Your task to perform on an android device: check google app version Image 0: 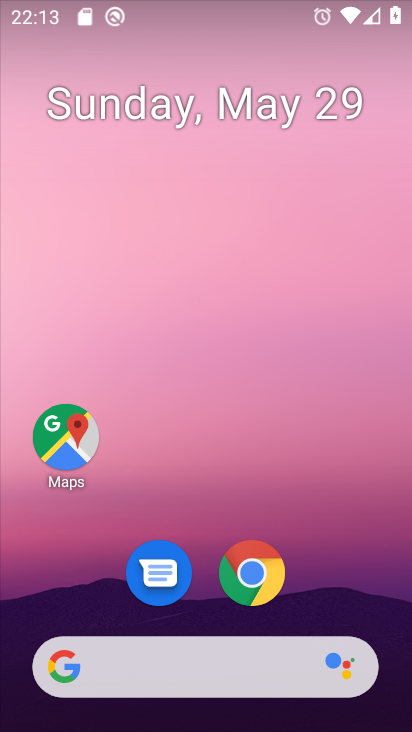
Step 0: click (156, 674)
Your task to perform on an android device: check google app version Image 1: 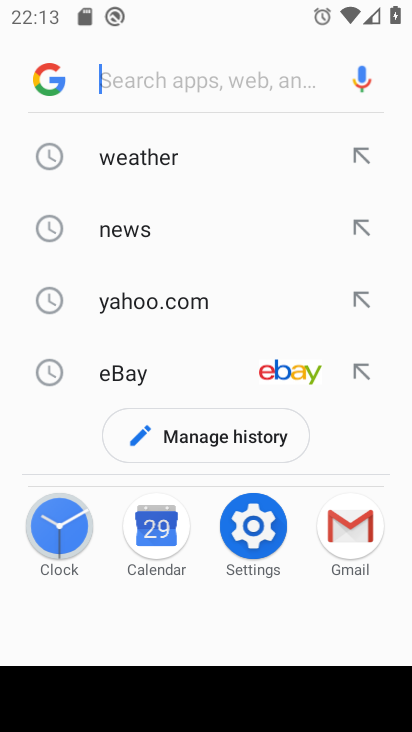
Step 1: click (57, 85)
Your task to perform on an android device: check google app version Image 2: 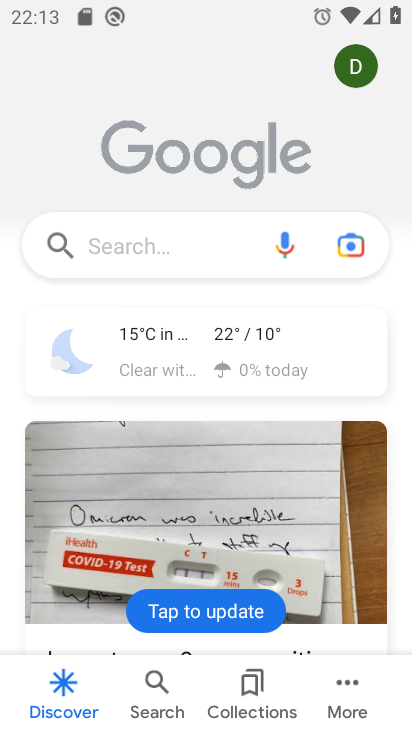
Step 2: click (336, 678)
Your task to perform on an android device: check google app version Image 3: 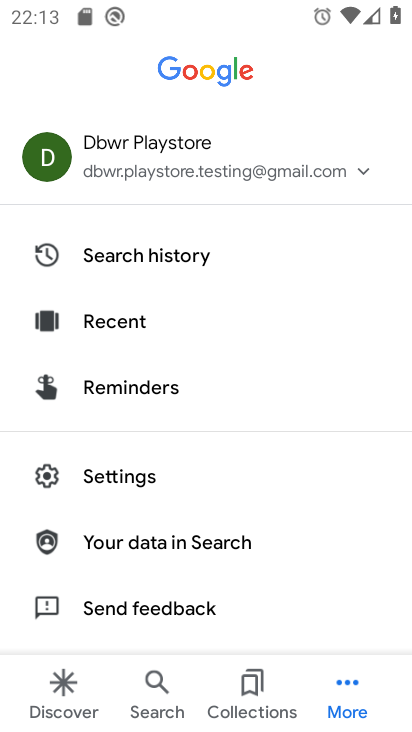
Step 3: click (125, 465)
Your task to perform on an android device: check google app version Image 4: 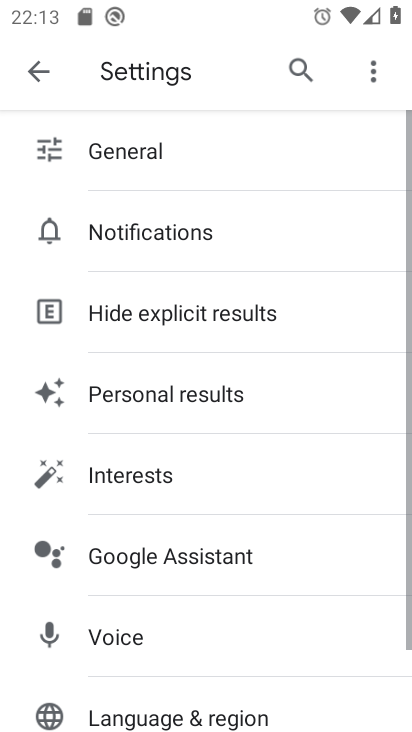
Step 4: drag from (258, 476) to (310, 126)
Your task to perform on an android device: check google app version Image 5: 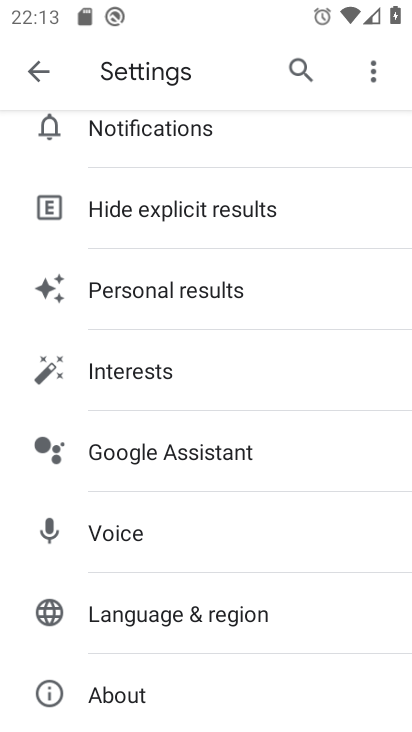
Step 5: click (109, 690)
Your task to perform on an android device: check google app version Image 6: 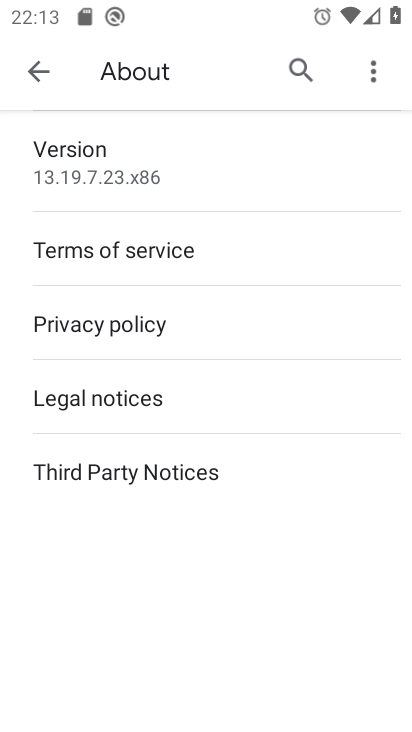
Step 6: task complete